Your task to perform on an android device: Add "alienware aurora" to the cart on walmart.com Image 0: 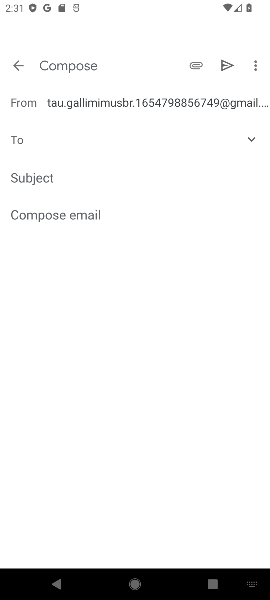
Step 0: press home button
Your task to perform on an android device: Add "alienware aurora" to the cart on walmart.com Image 1: 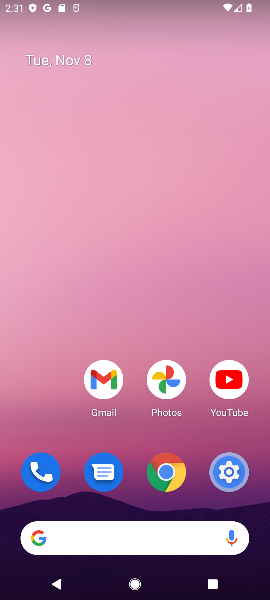
Step 1: click (117, 531)
Your task to perform on an android device: Add "alienware aurora" to the cart on walmart.com Image 2: 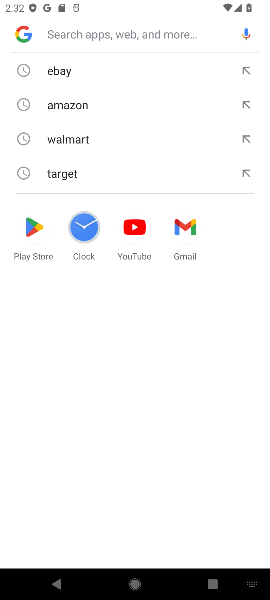
Step 2: click (76, 136)
Your task to perform on an android device: Add "alienware aurora" to the cart on walmart.com Image 3: 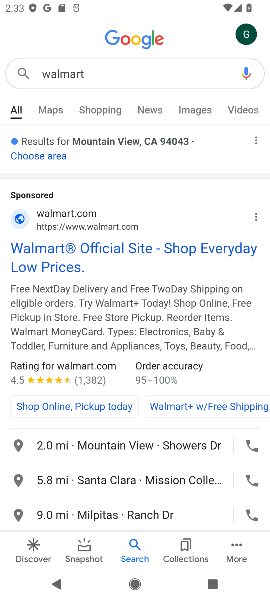
Step 3: click (53, 268)
Your task to perform on an android device: Add "alienware aurora" to the cart on walmart.com Image 4: 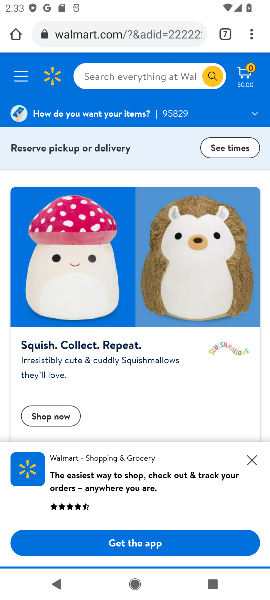
Step 4: task complete